Your task to perform on an android device: Show me popular games on the Play Store Image 0: 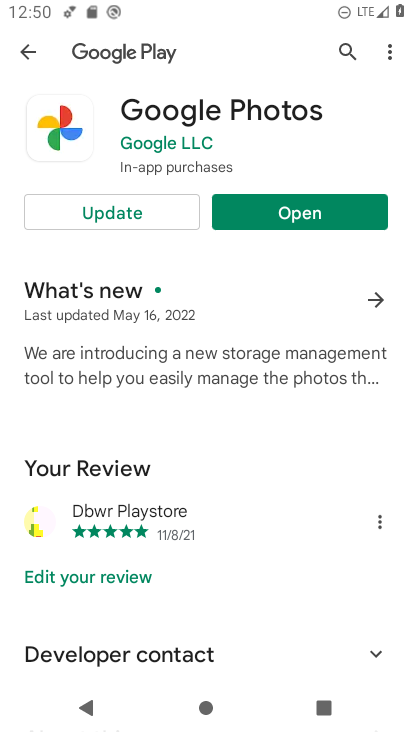
Step 0: press home button
Your task to perform on an android device: Show me popular games on the Play Store Image 1: 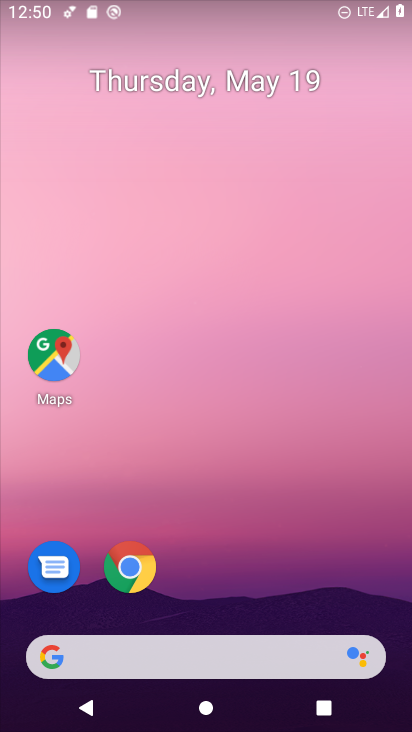
Step 1: drag from (236, 573) to (191, 59)
Your task to perform on an android device: Show me popular games on the Play Store Image 2: 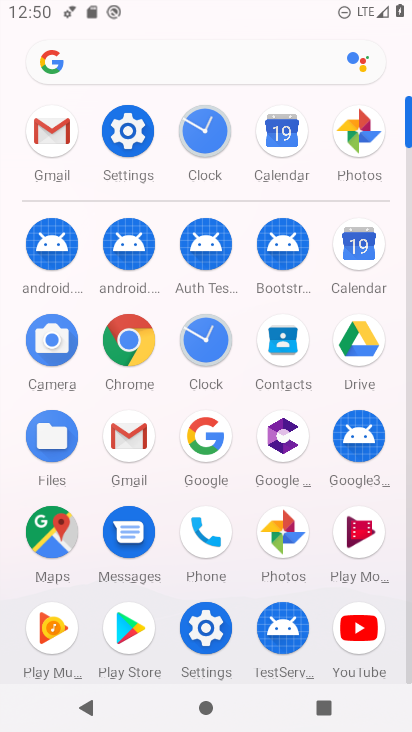
Step 2: click (131, 625)
Your task to perform on an android device: Show me popular games on the Play Store Image 3: 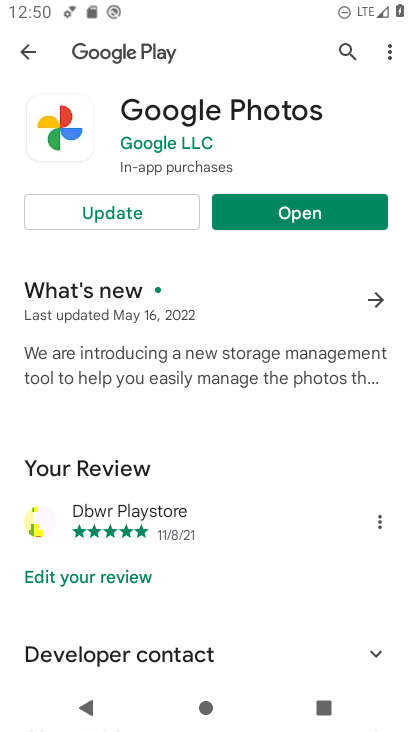
Step 3: click (28, 46)
Your task to perform on an android device: Show me popular games on the Play Store Image 4: 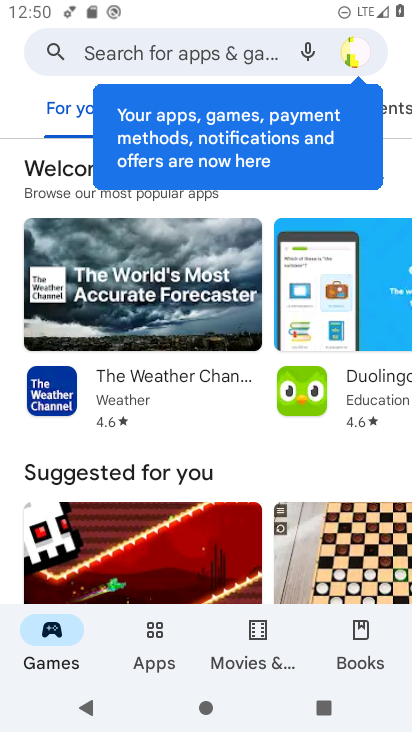
Step 4: drag from (274, 430) to (273, 38)
Your task to perform on an android device: Show me popular games on the Play Store Image 5: 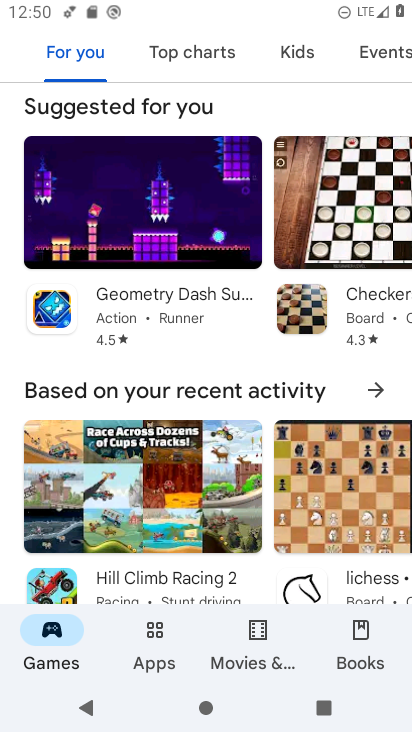
Step 5: drag from (229, 470) to (227, 156)
Your task to perform on an android device: Show me popular games on the Play Store Image 6: 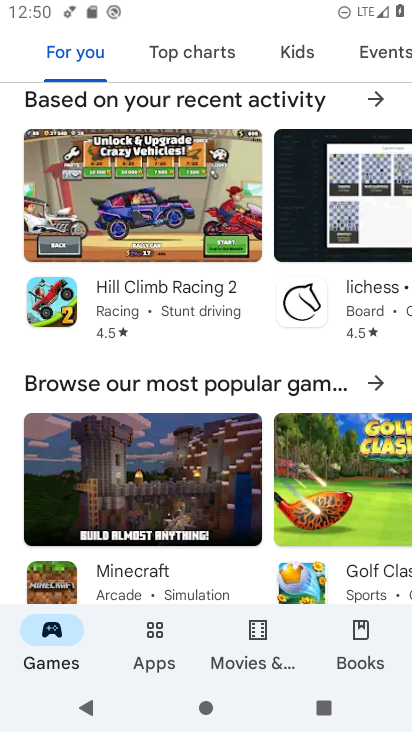
Step 6: click (380, 381)
Your task to perform on an android device: Show me popular games on the Play Store Image 7: 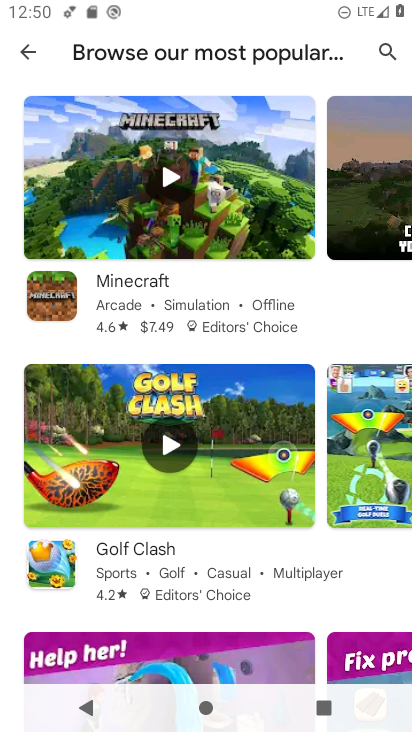
Step 7: task complete